Your task to perform on an android device: Open Maps and search for coffee Image 0: 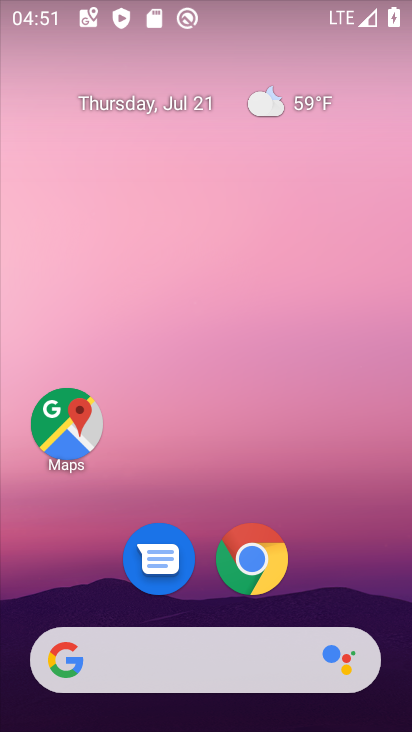
Step 0: click (74, 415)
Your task to perform on an android device: Open Maps and search for coffee Image 1: 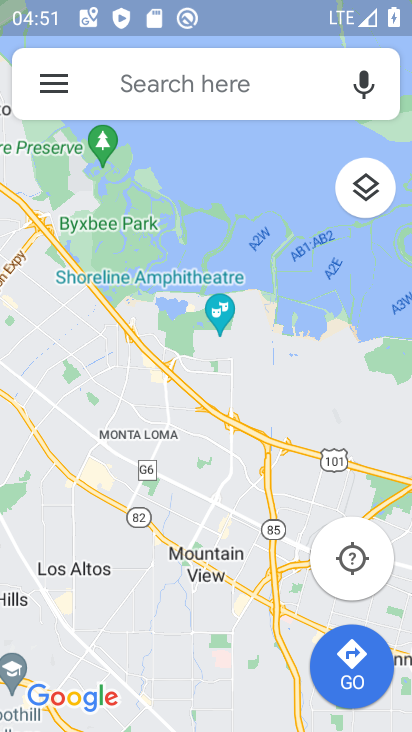
Step 1: click (155, 83)
Your task to perform on an android device: Open Maps and search for coffee Image 2: 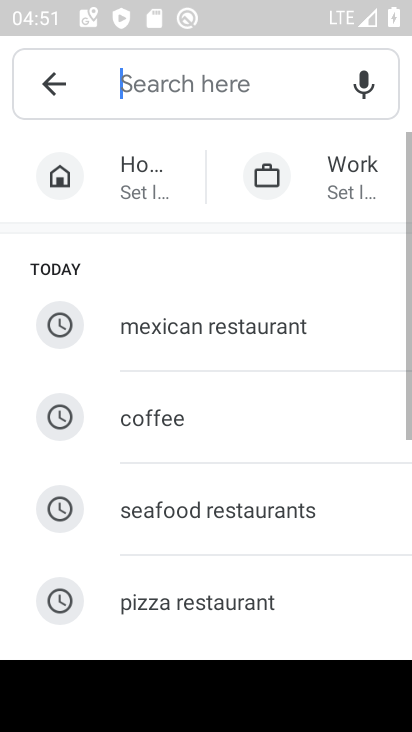
Step 2: click (145, 408)
Your task to perform on an android device: Open Maps and search for coffee Image 3: 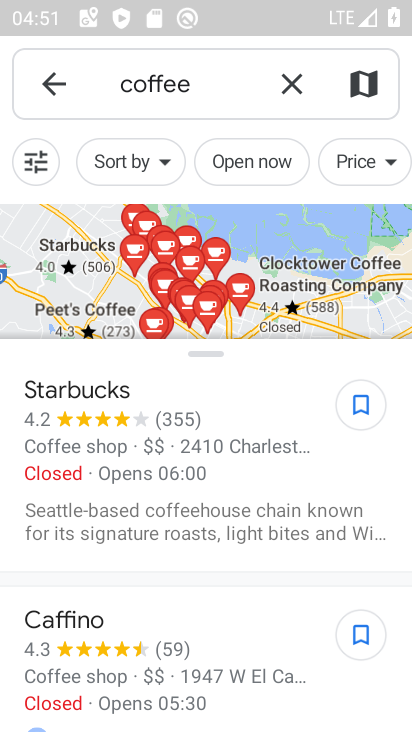
Step 3: task complete